Your task to perform on an android device: Open the calendar app, open the side menu, and click the "Day" option Image 0: 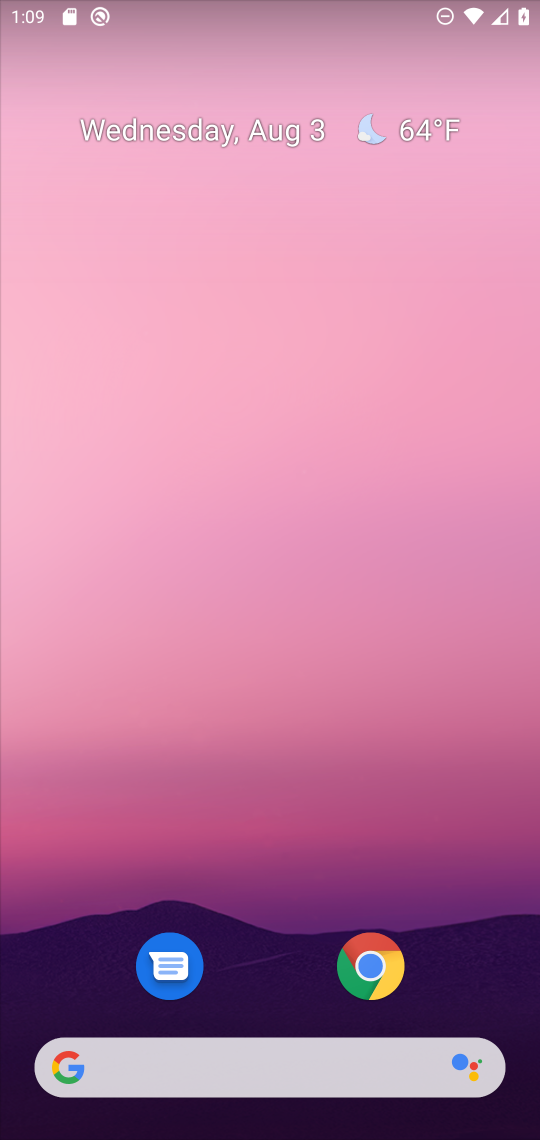
Step 0: drag from (259, 969) to (241, 351)
Your task to perform on an android device: Open the calendar app, open the side menu, and click the "Day" option Image 1: 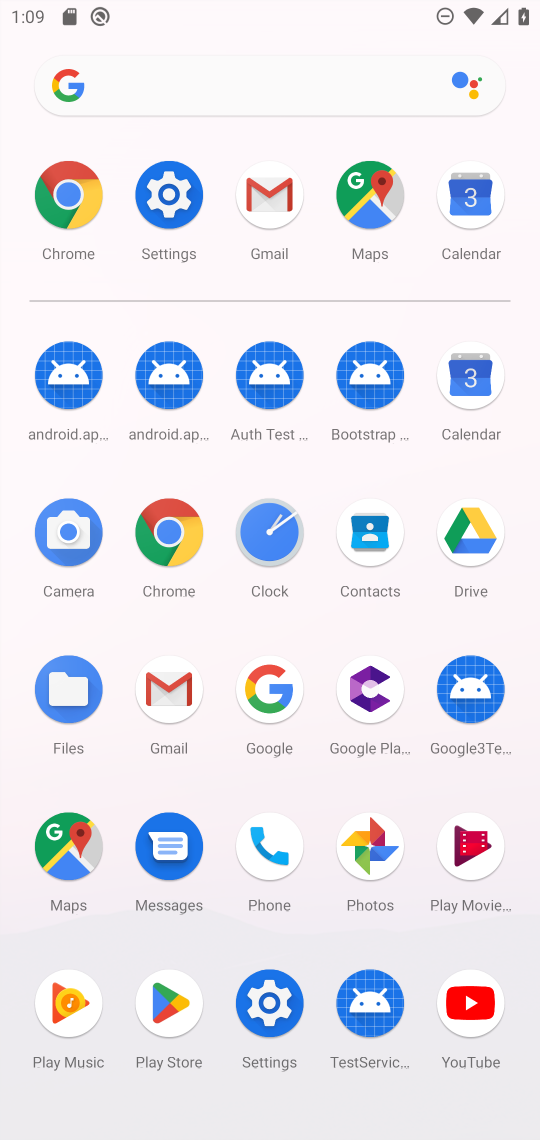
Step 1: click (477, 213)
Your task to perform on an android device: Open the calendar app, open the side menu, and click the "Day" option Image 2: 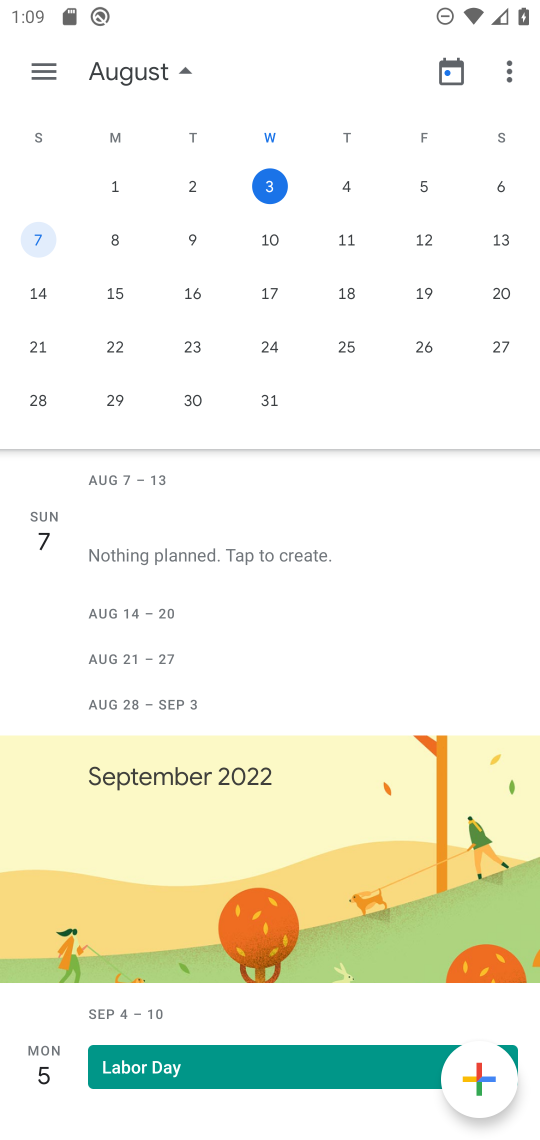
Step 2: click (56, 84)
Your task to perform on an android device: Open the calendar app, open the side menu, and click the "Day" option Image 3: 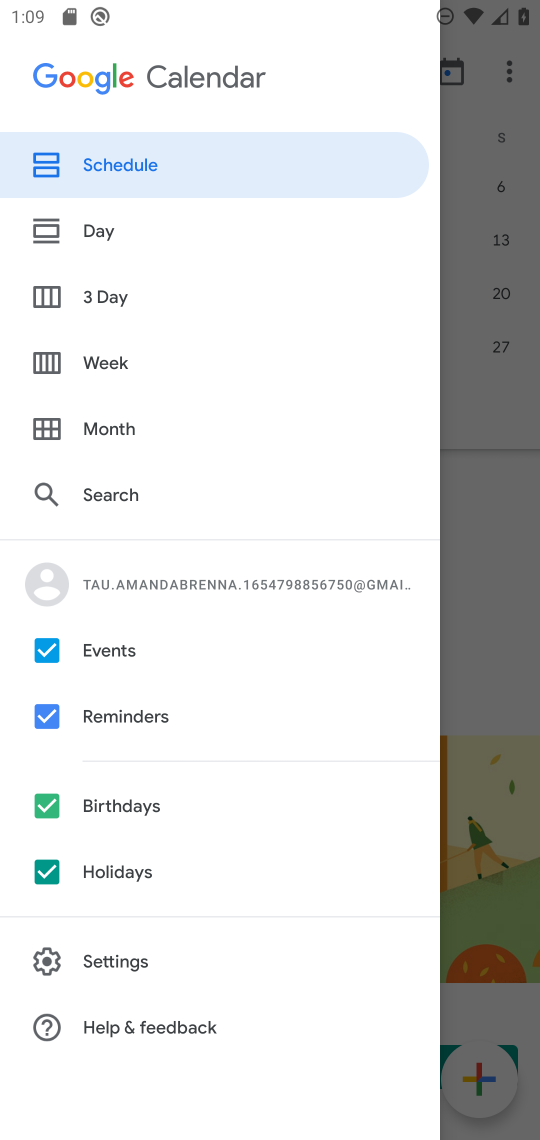
Step 3: click (109, 231)
Your task to perform on an android device: Open the calendar app, open the side menu, and click the "Day" option Image 4: 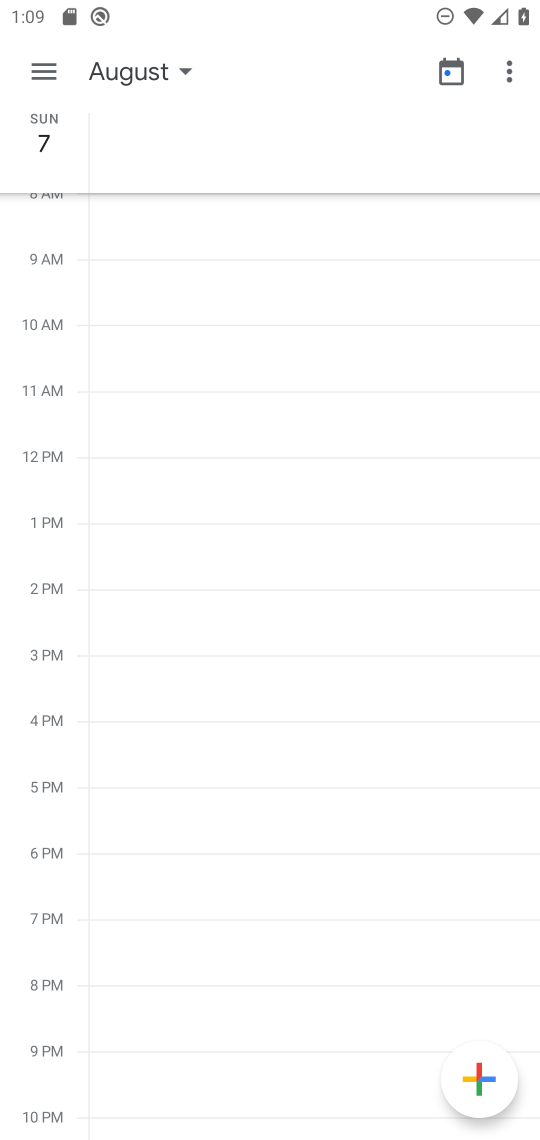
Step 4: task complete